Your task to perform on an android device: open app "Firefox Browser" (install if not already installed) Image 0: 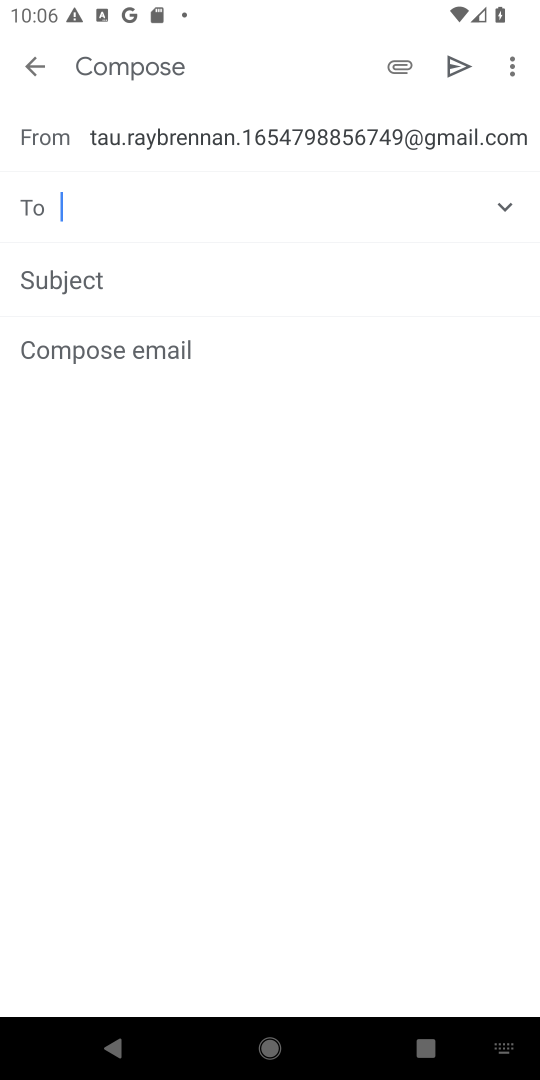
Step 0: press home button
Your task to perform on an android device: open app "Firefox Browser" (install if not already installed) Image 1: 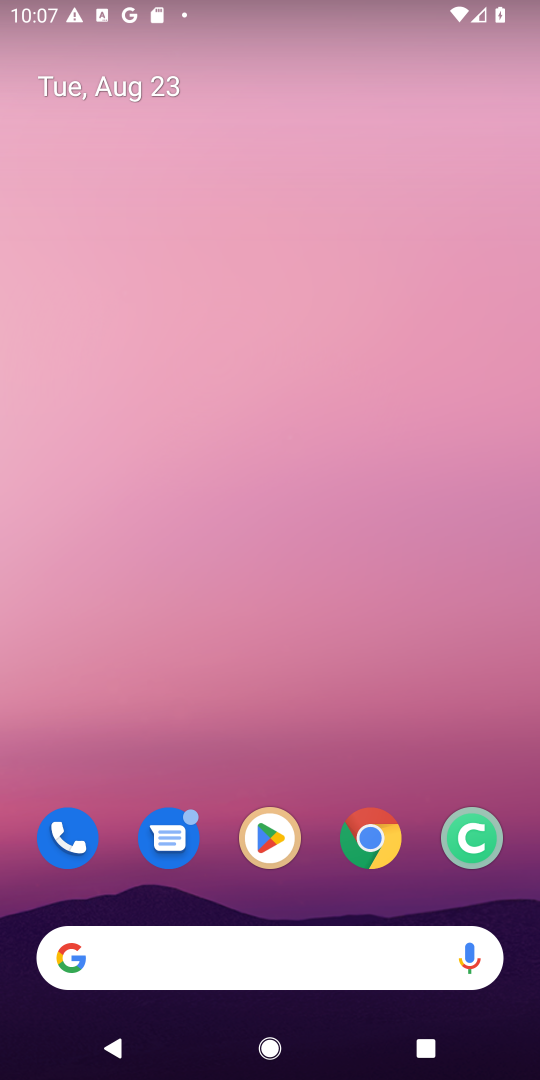
Step 1: click (291, 830)
Your task to perform on an android device: open app "Firefox Browser" (install if not already installed) Image 2: 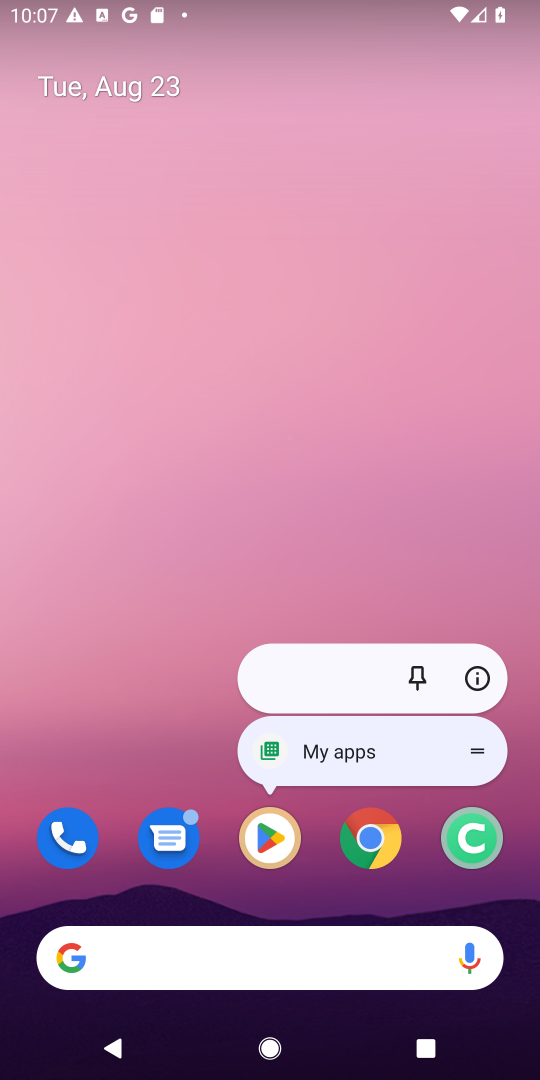
Step 2: click (298, 844)
Your task to perform on an android device: open app "Firefox Browser" (install if not already installed) Image 3: 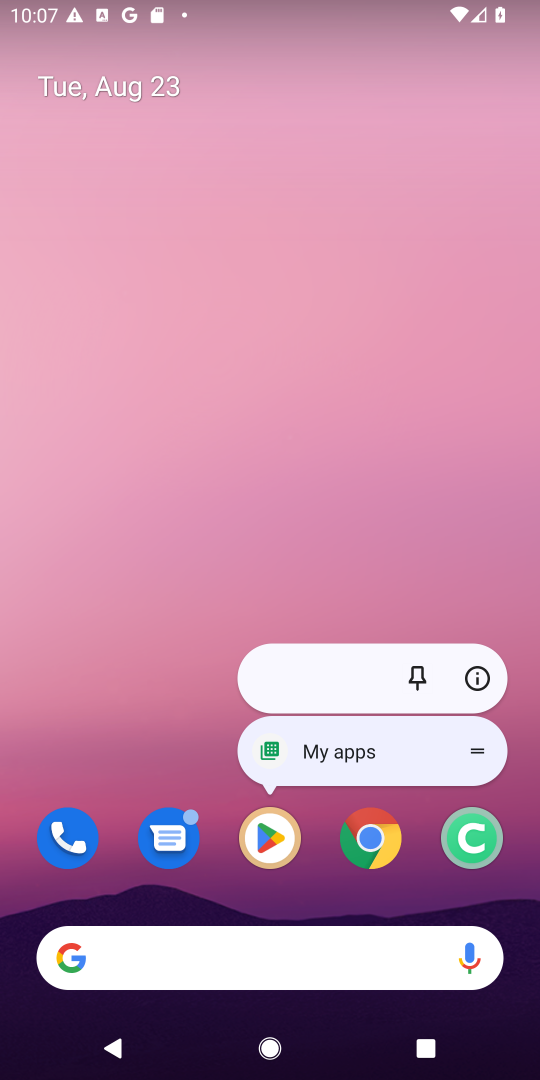
Step 3: click (298, 844)
Your task to perform on an android device: open app "Firefox Browser" (install if not already installed) Image 4: 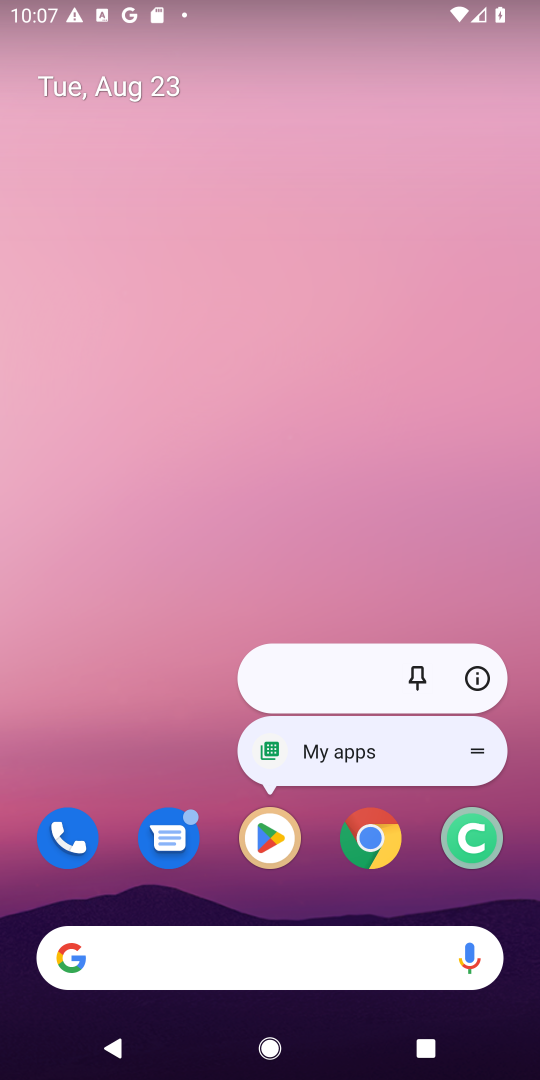
Step 4: click (285, 840)
Your task to perform on an android device: open app "Firefox Browser" (install if not already installed) Image 5: 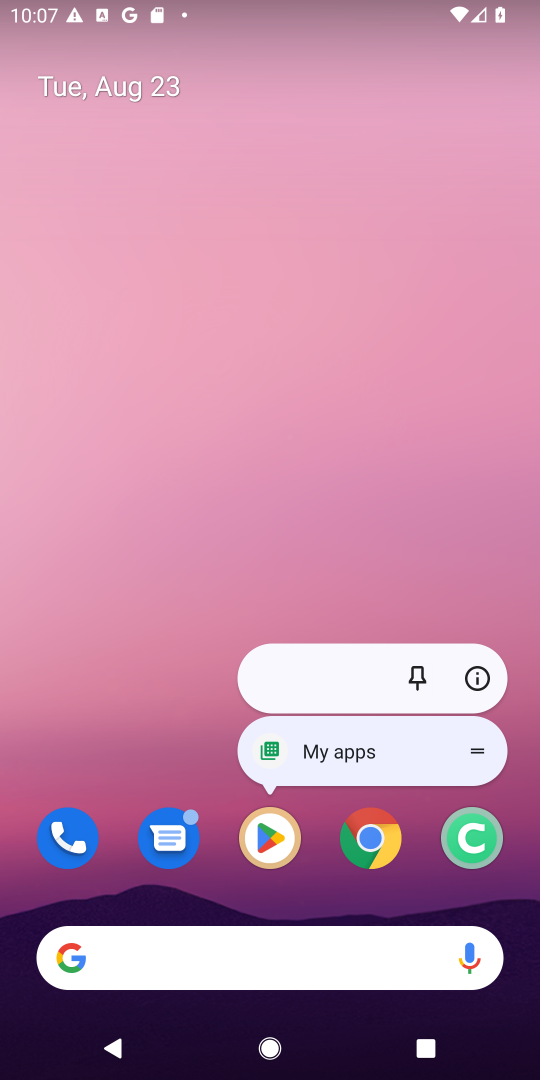
Step 5: click (285, 840)
Your task to perform on an android device: open app "Firefox Browser" (install if not already installed) Image 6: 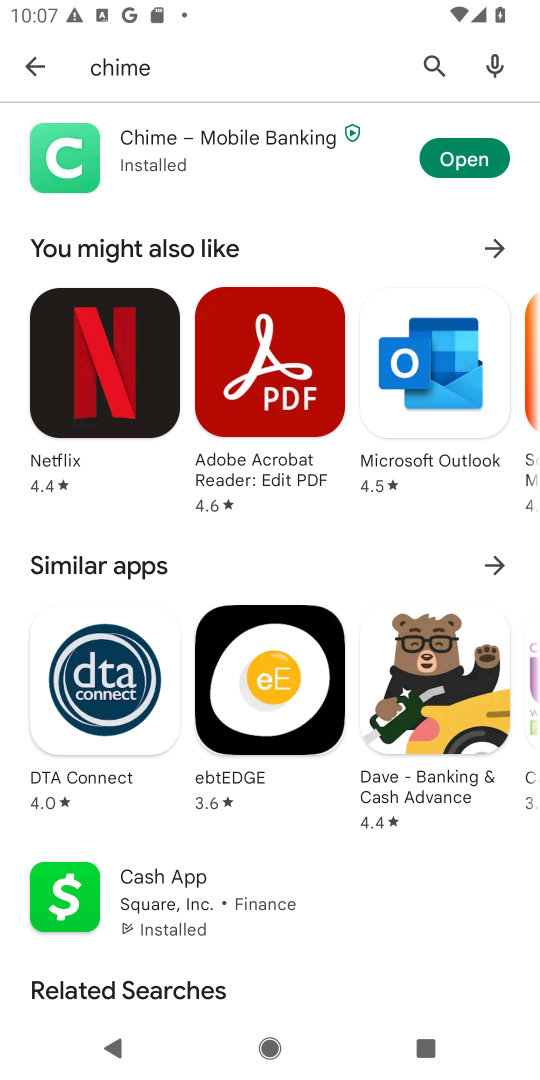
Step 6: click (439, 61)
Your task to perform on an android device: open app "Firefox Browser" (install if not already installed) Image 7: 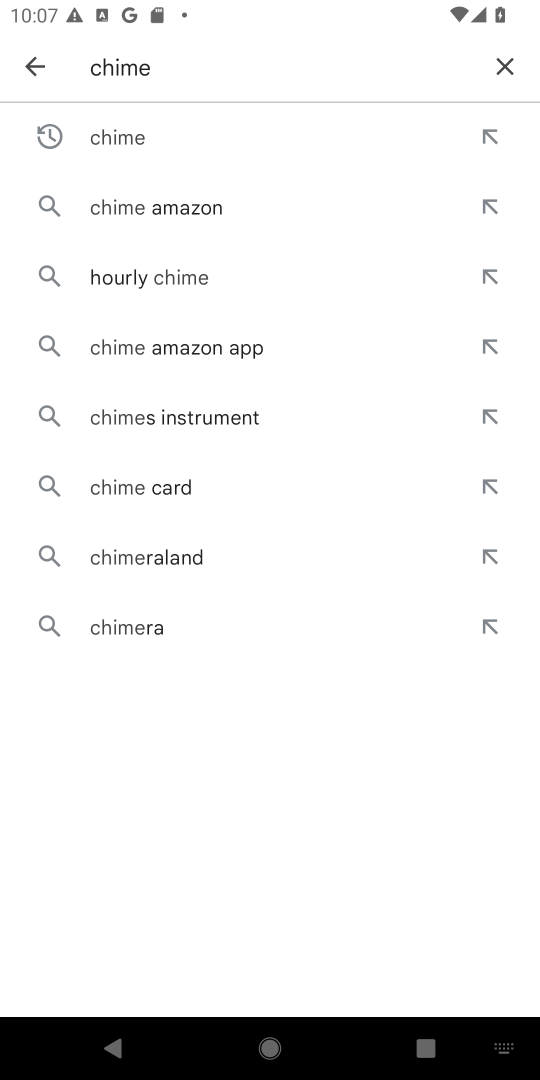
Step 7: click (502, 68)
Your task to perform on an android device: open app "Firefox Browser" (install if not already installed) Image 8: 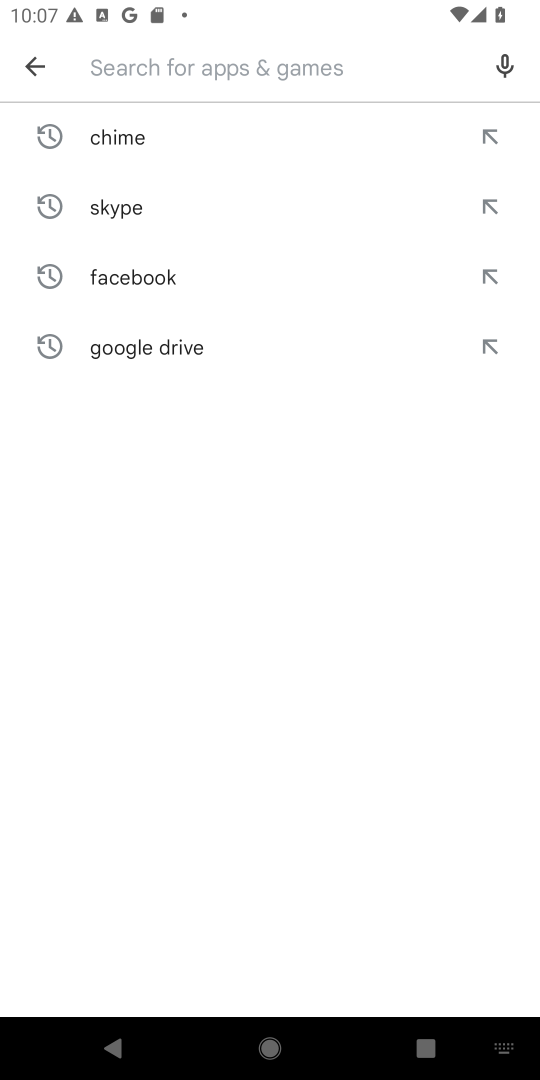
Step 8: type "Firefox Browser"
Your task to perform on an android device: open app "Firefox Browser" (install if not already installed) Image 9: 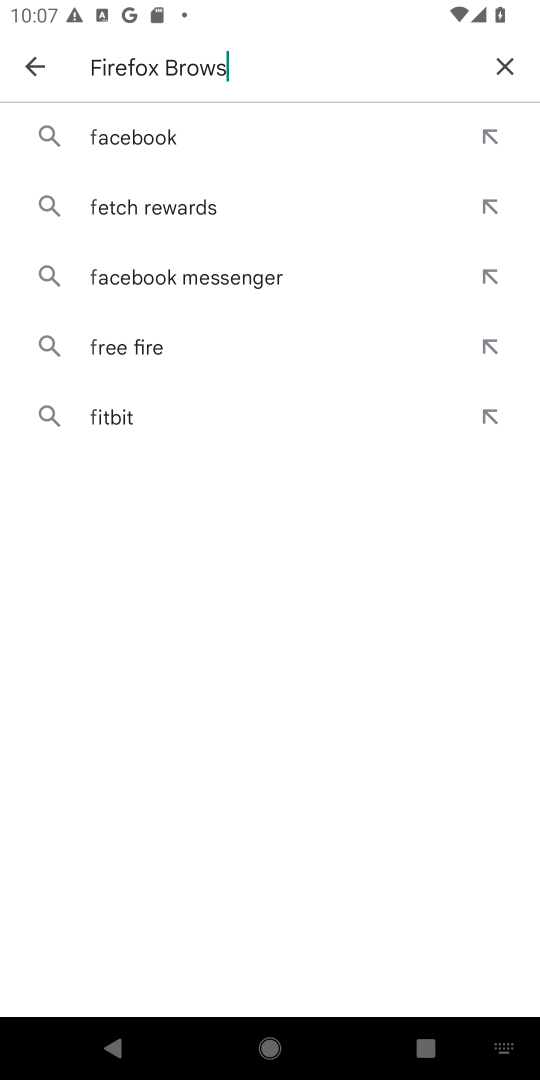
Step 9: type ""
Your task to perform on an android device: open app "Firefox Browser" (install if not already installed) Image 10: 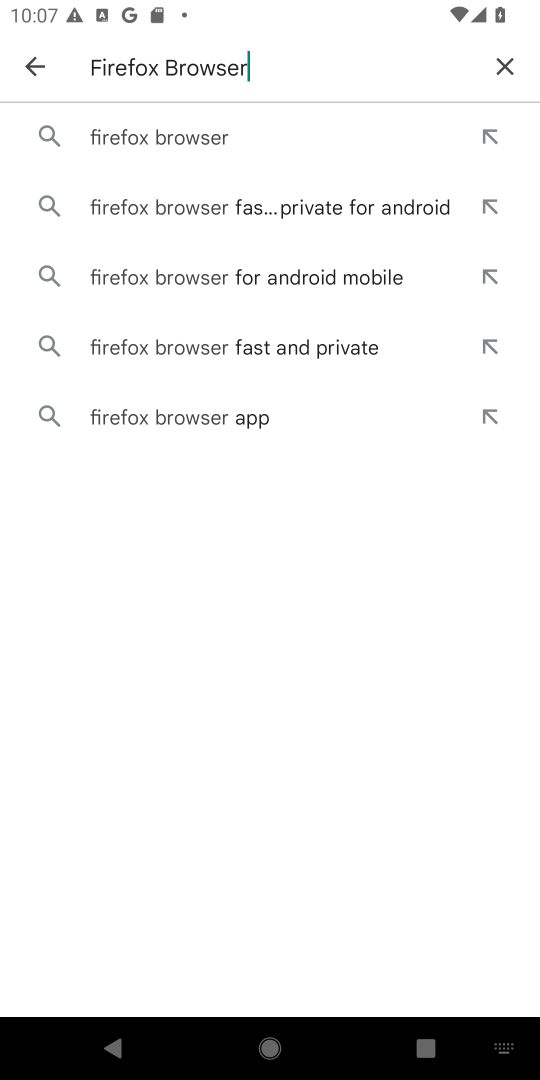
Step 10: click (252, 136)
Your task to perform on an android device: open app "Firefox Browser" (install if not already installed) Image 11: 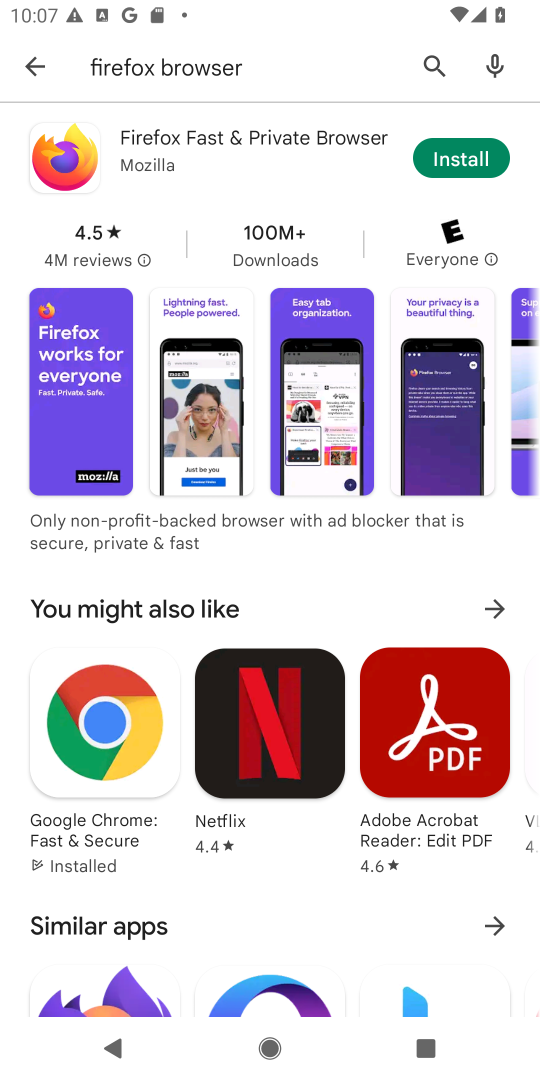
Step 11: click (438, 145)
Your task to perform on an android device: open app "Firefox Browser" (install if not already installed) Image 12: 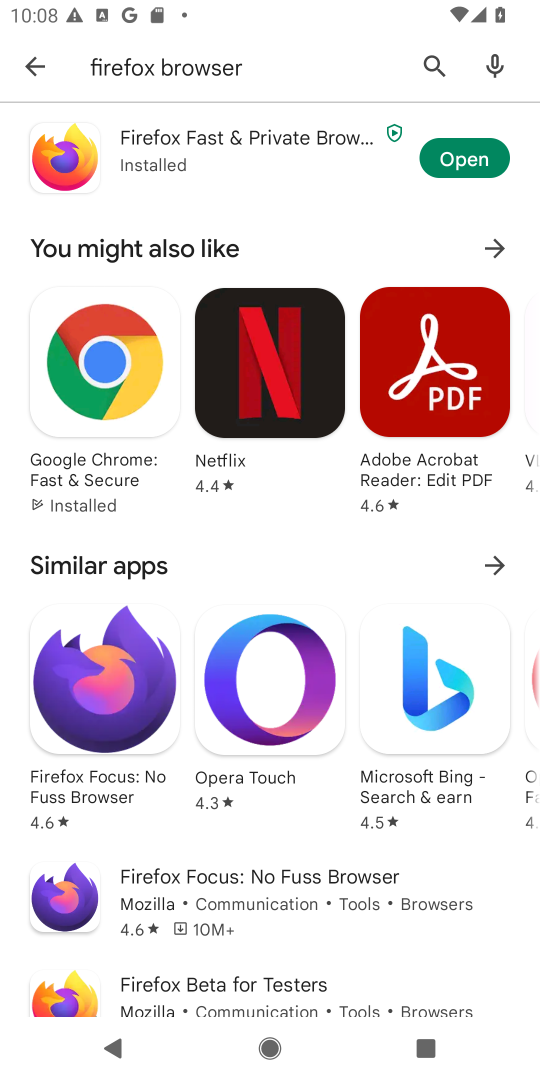
Step 12: click (479, 174)
Your task to perform on an android device: open app "Firefox Browser" (install if not already installed) Image 13: 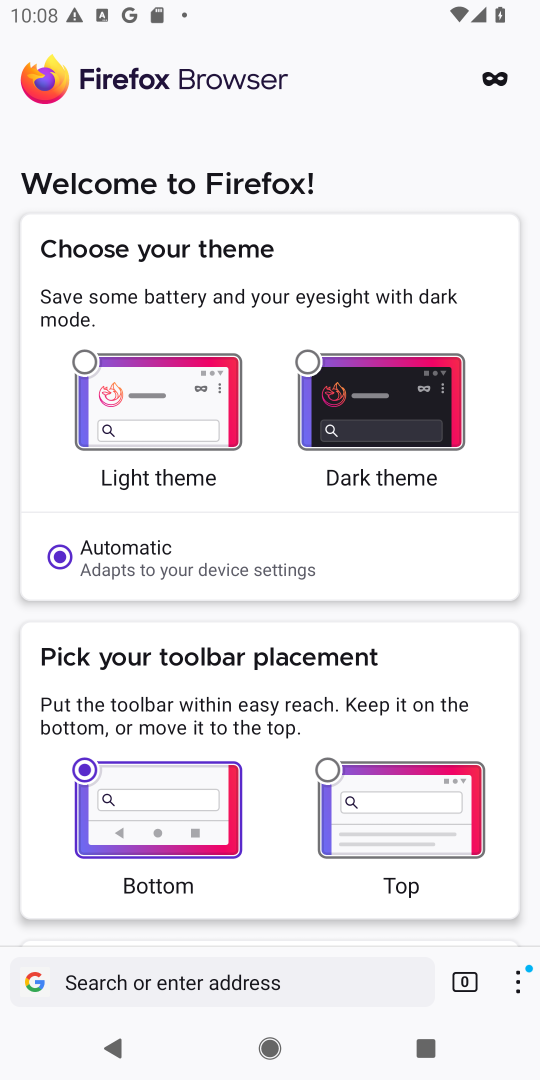
Step 13: task complete